Your task to perform on an android device: change notifications settings Image 0: 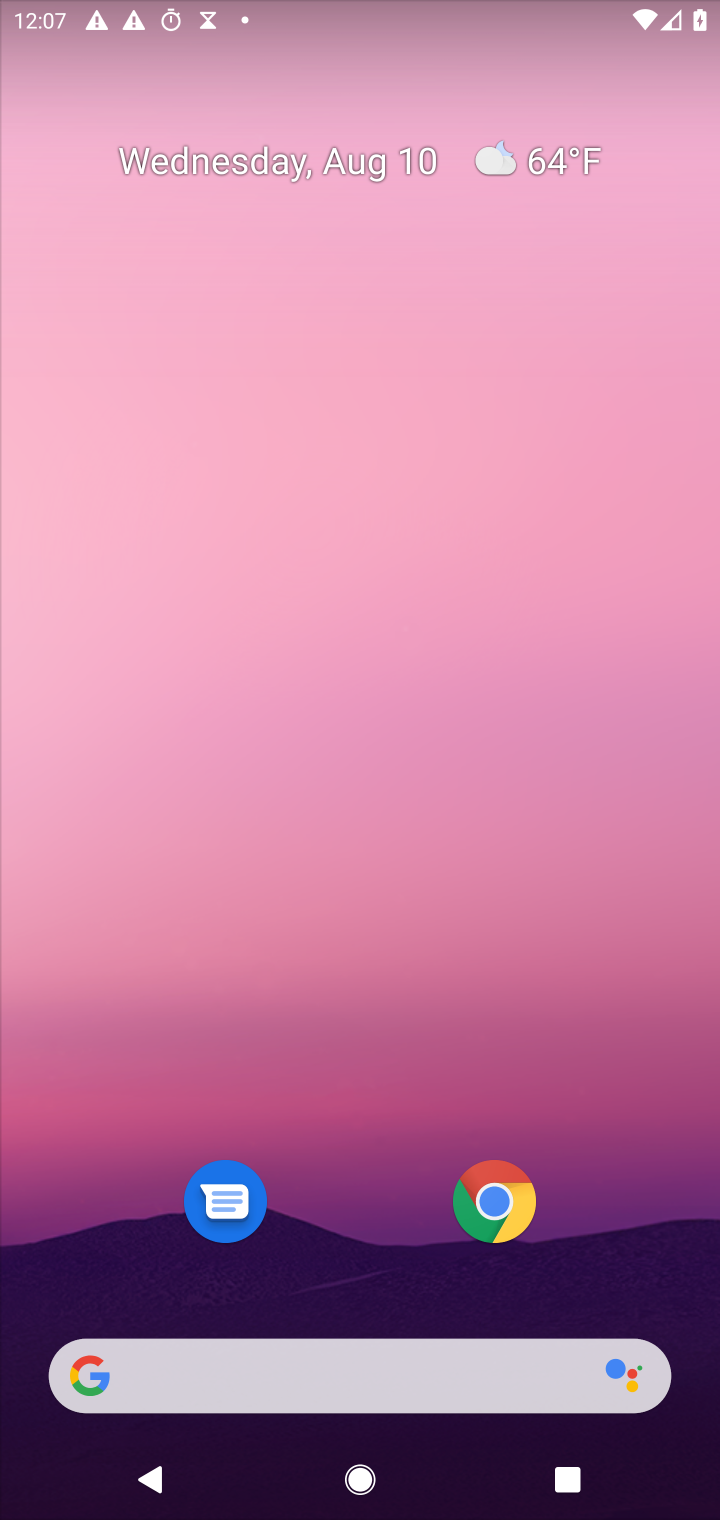
Step 0: press home button
Your task to perform on an android device: change notifications settings Image 1: 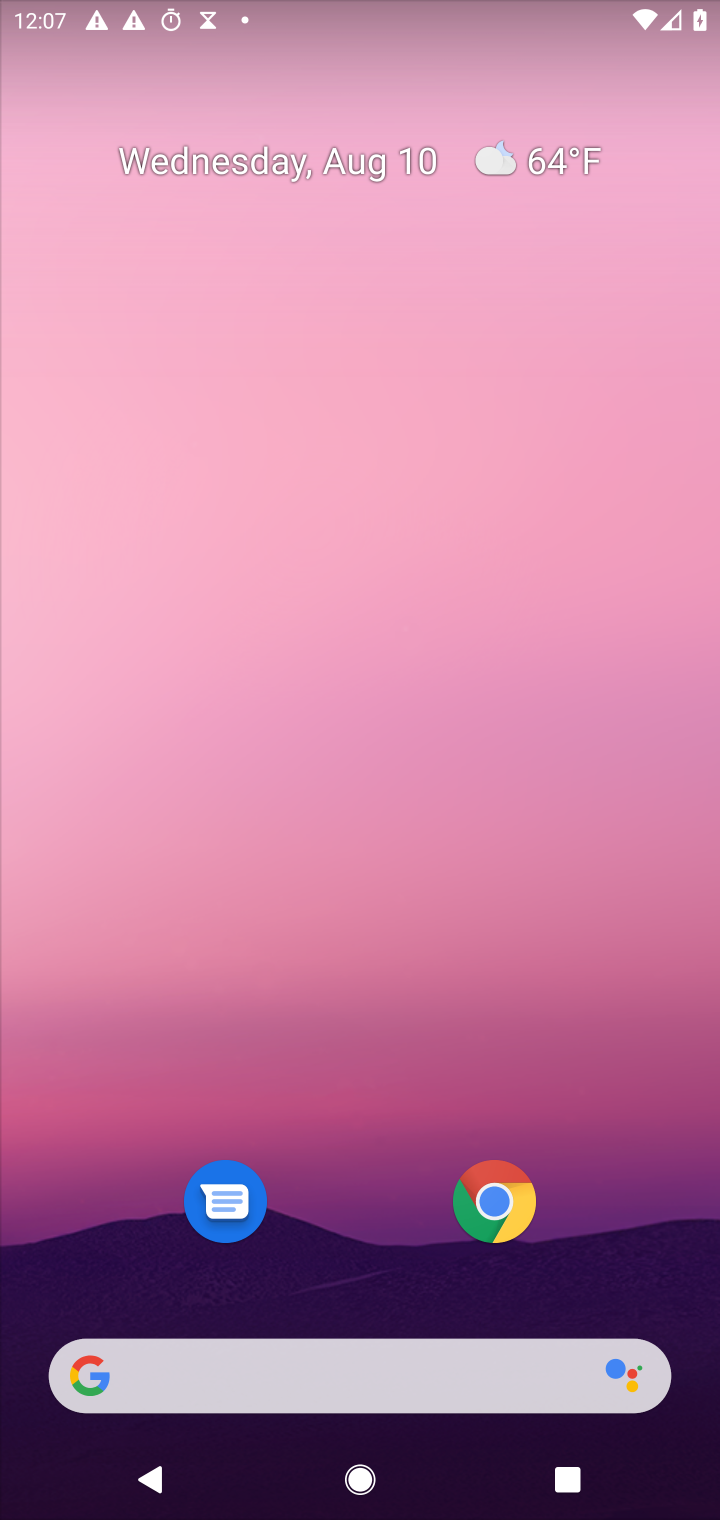
Step 1: drag from (354, 1242) to (295, 47)
Your task to perform on an android device: change notifications settings Image 2: 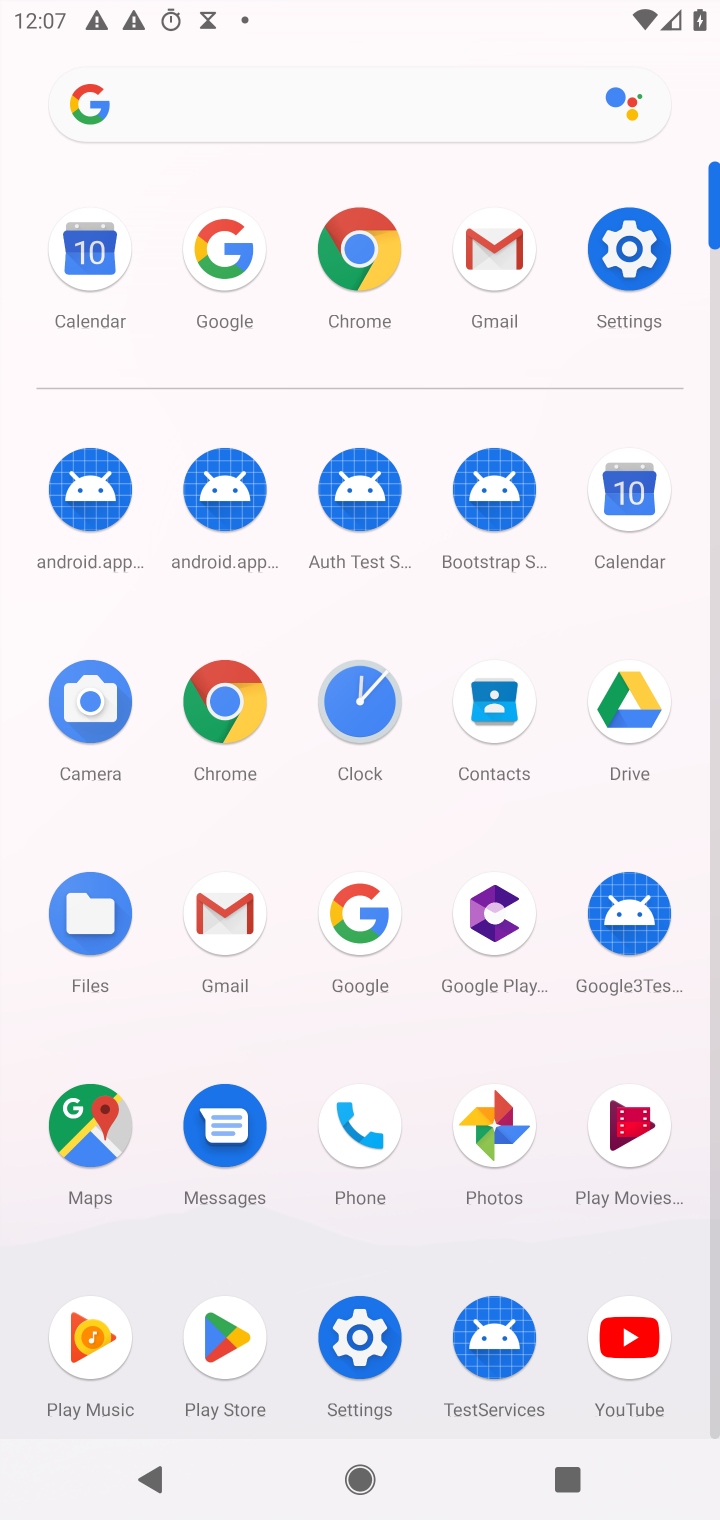
Step 2: click (625, 247)
Your task to perform on an android device: change notifications settings Image 3: 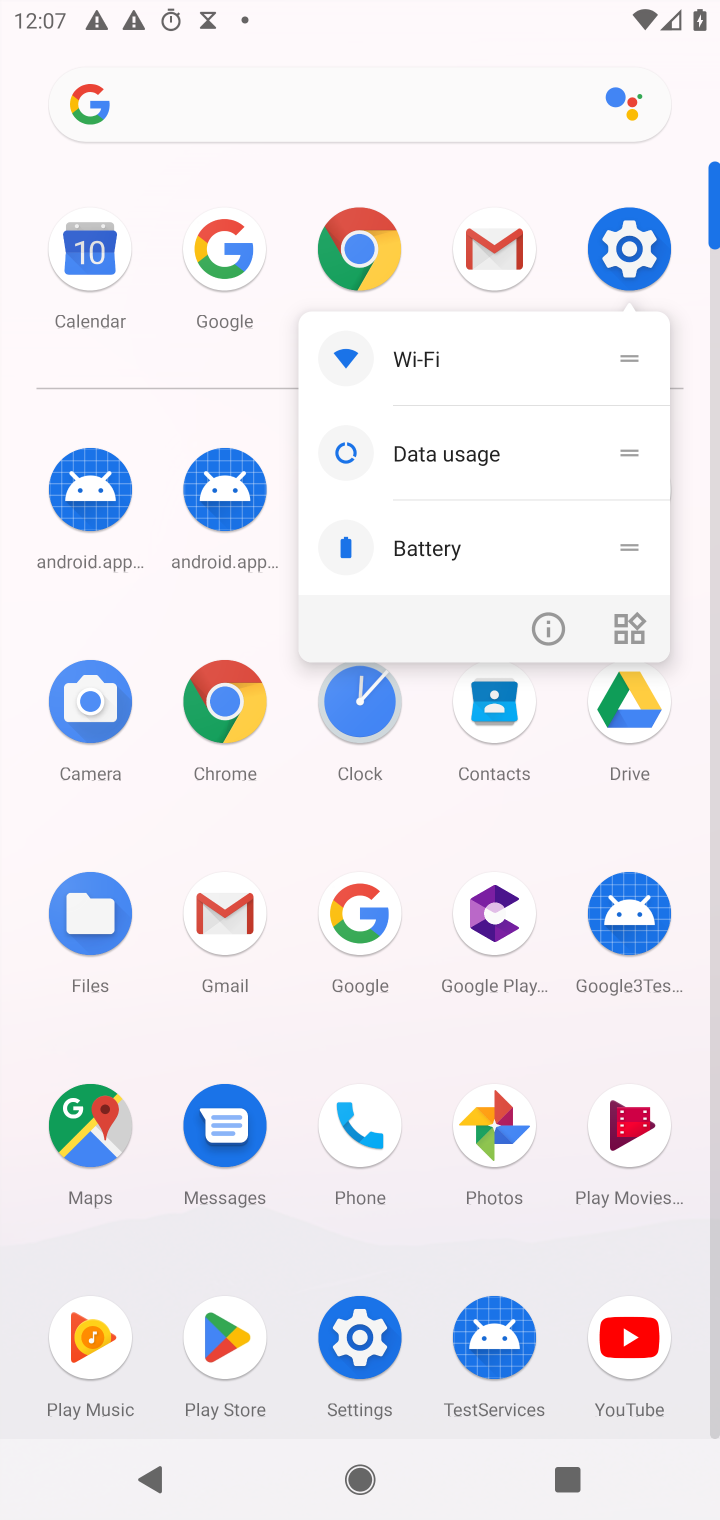
Step 3: click (621, 233)
Your task to perform on an android device: change notifications settings Image 4: 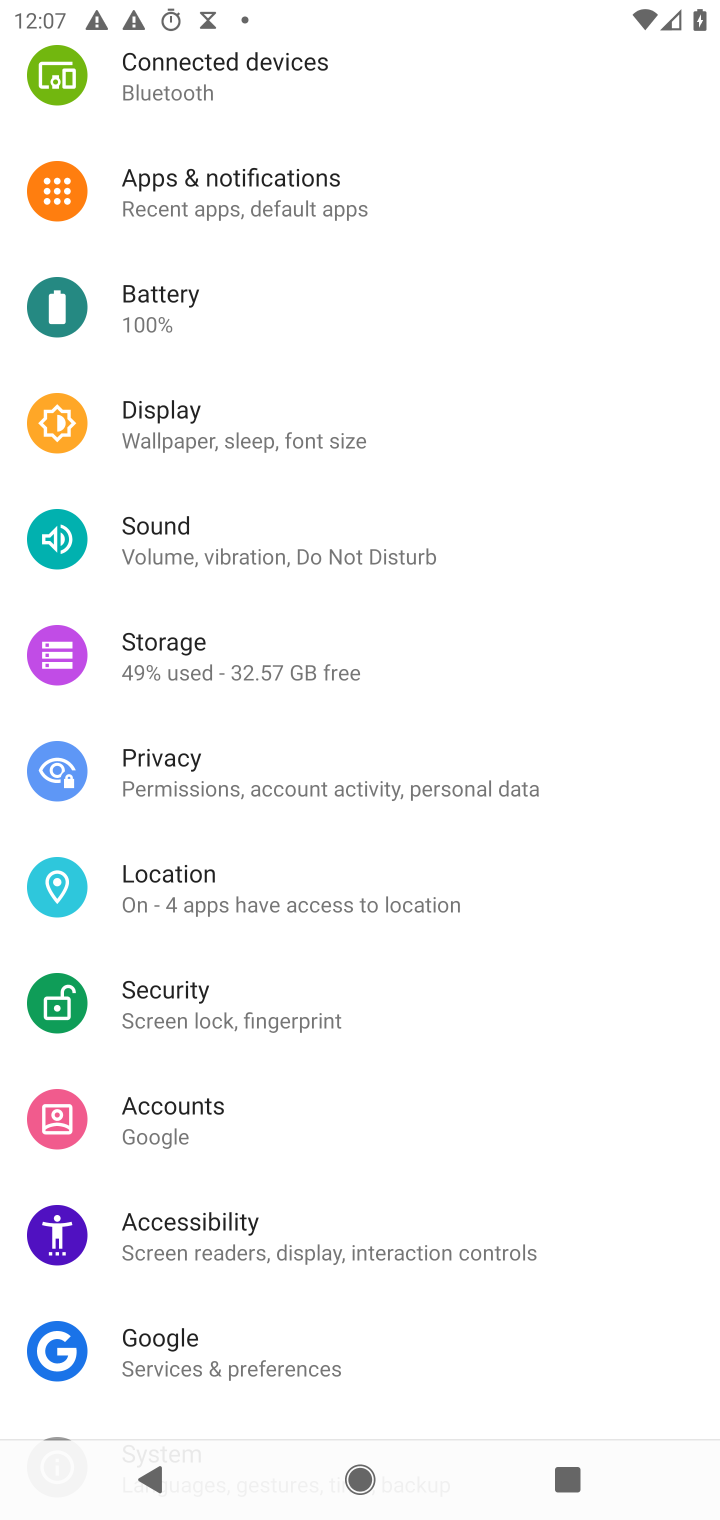
Step 4: click (163, 191)
Your task to perform on an android device: change notifications settings Image 5: 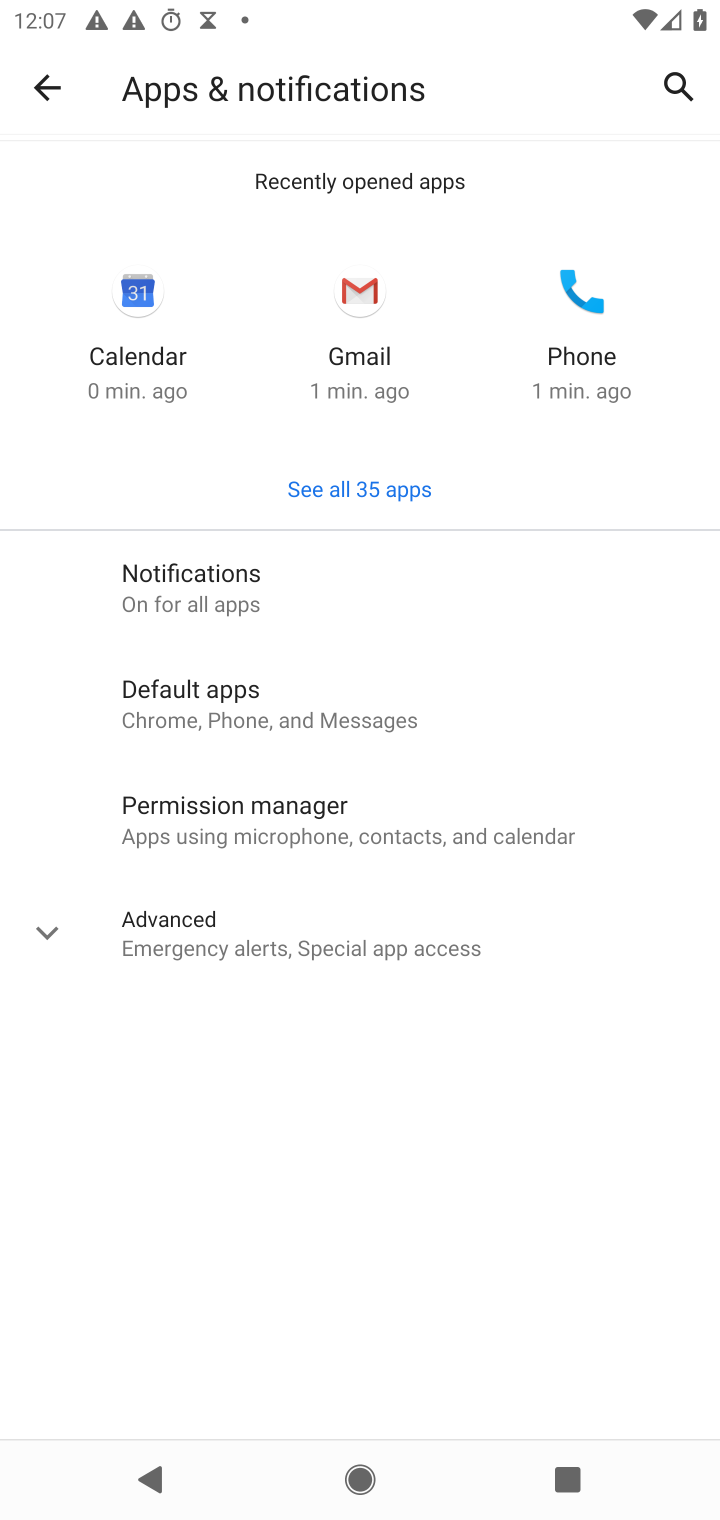
Step 5: click (248, 563)
Your task to perform on an android device: change notifications settings Image 6: 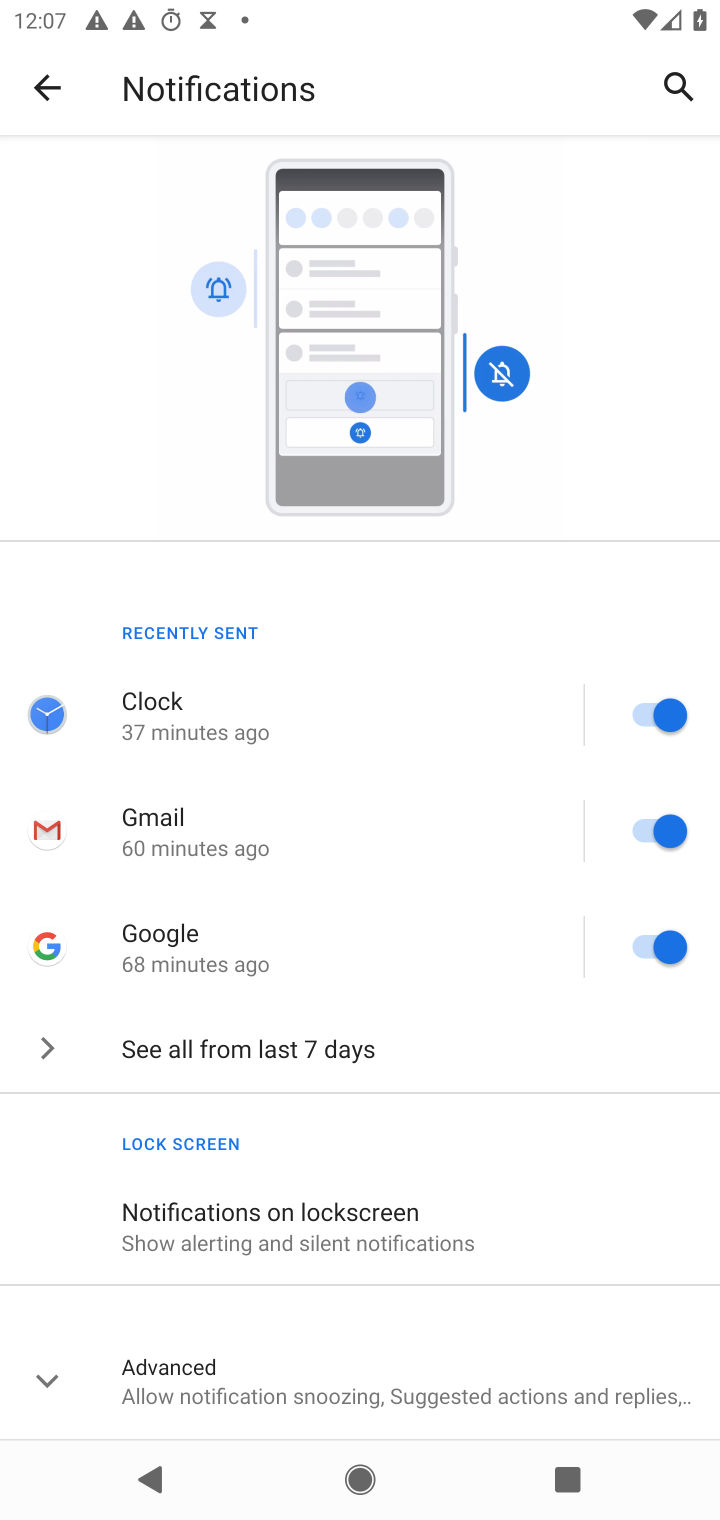
Step 6: click (491, 378)
Your task to perform on an android device: change notifications settings Image 7: 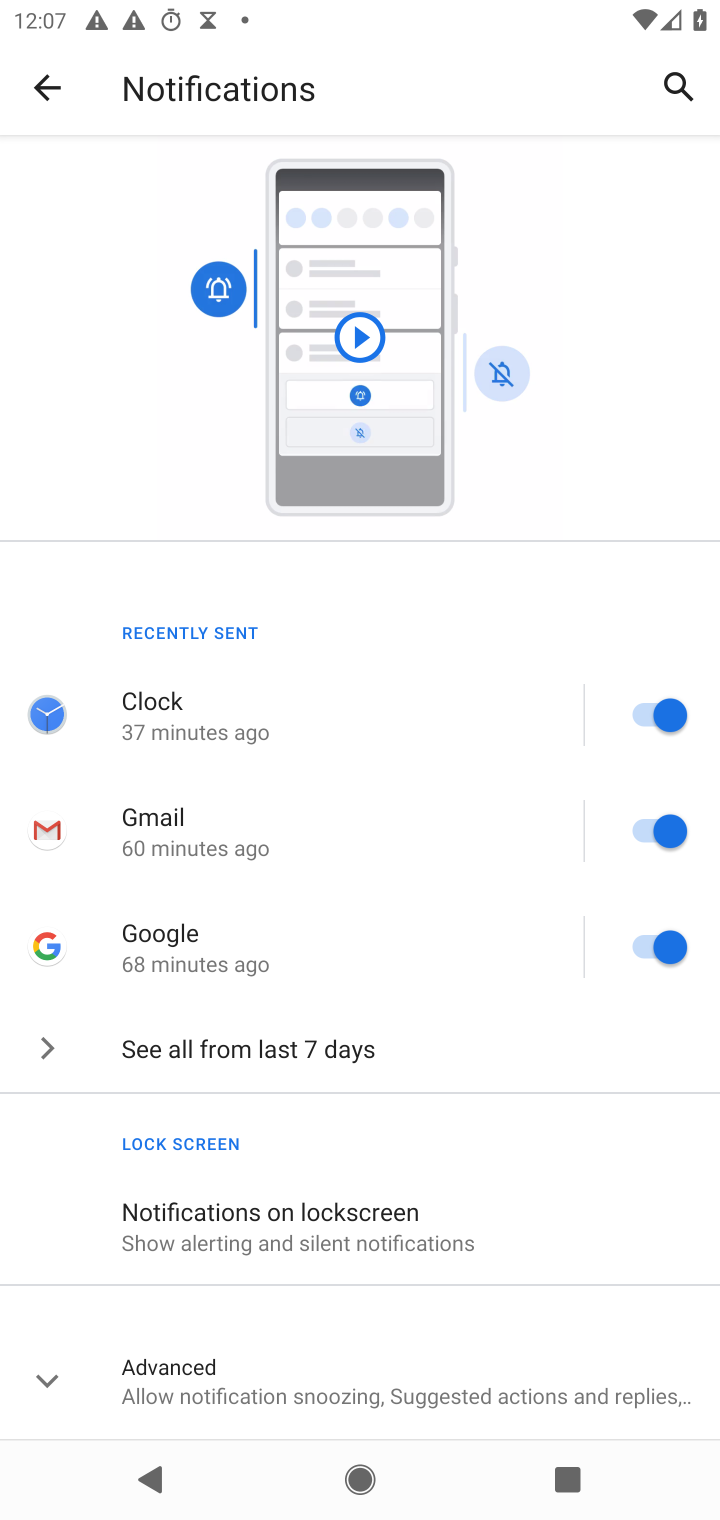
Step 7: task complete